Your task to perform on an android device: Is it going to rain tomorrow? Image 0: 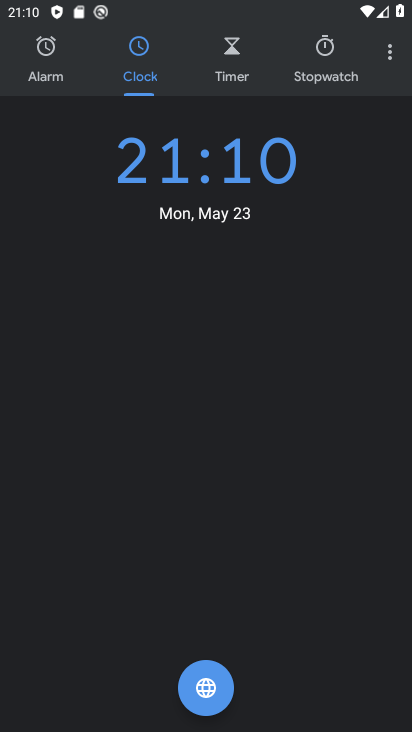
Step 0: press home button
Your task to perform on an android device: Is it going to rain tomorrow? Image 1: 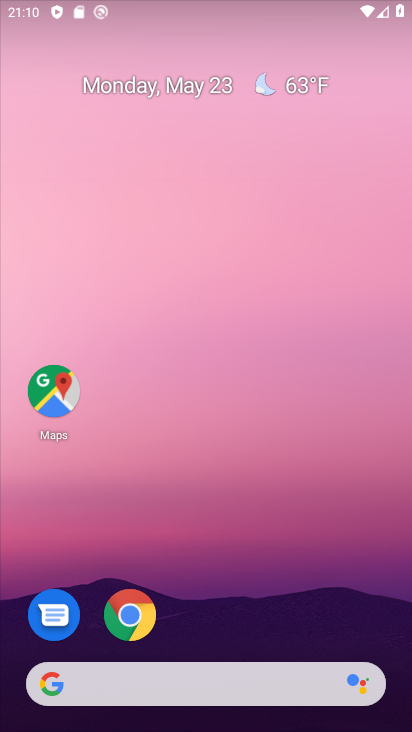
Step 1: drag from (214, 603) to (252, 167)
Your task to perform on an android device: Is it going to rain tomorrow? Image 2: 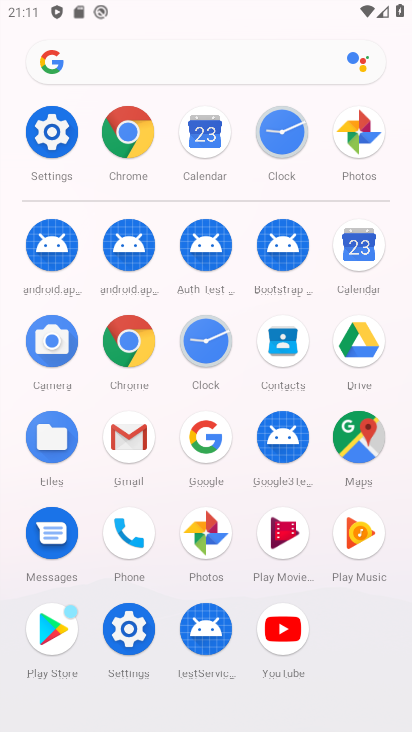
Step 2: click (215, 433)
Your task to perform on an android device: Is it going to rain tomorrow? Image 3: 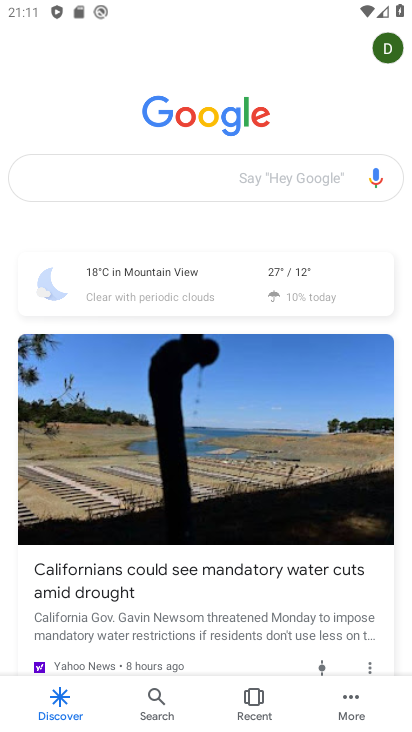
Step 3: click (157, 182)
Your task to perform on an android device: Is it going to rain tomorrow? Image 4: 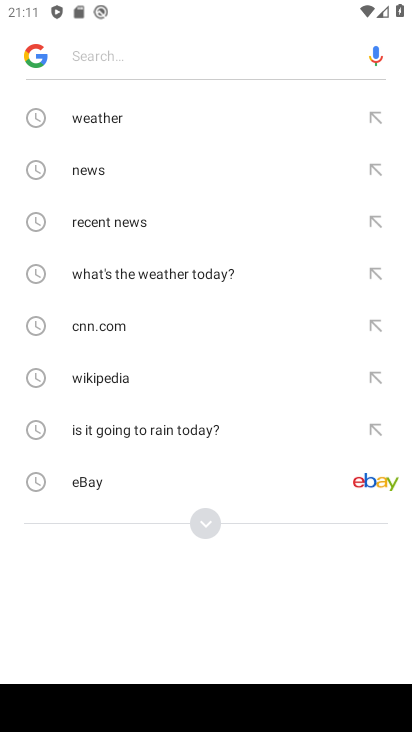
Step 4: type "is it going to rain tomorrow"
Your task to perform on an android device: Is it going to rain tomorrow? Image 5: 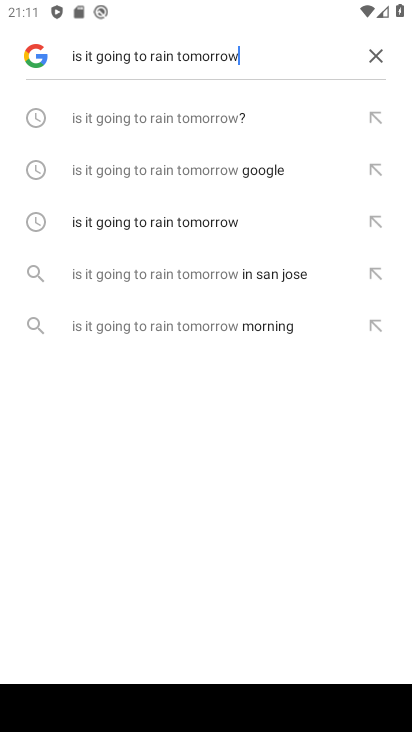
Step 5: click (161, 118)
Your task to perform on an android device: Is it going to rain tomorrow? Image 6: 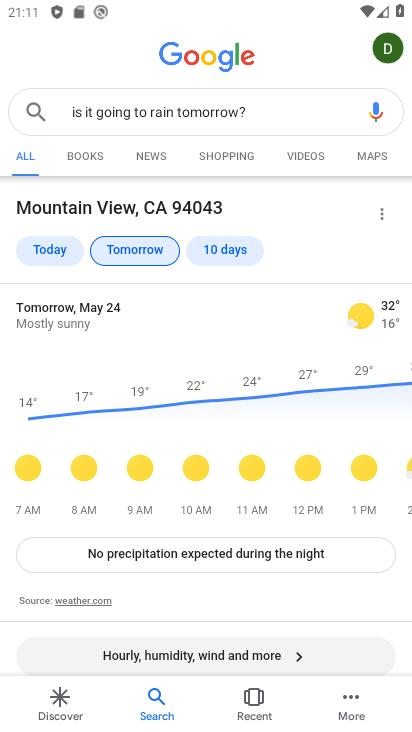
Step 6: task complete